Your task to perform on an android device: turn on data saver in the chrome app Image 0: 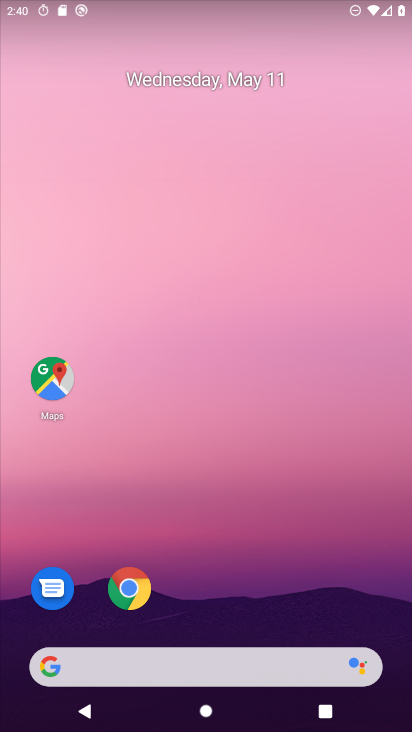
Step 0: drag from (273, 599) to (267, 35)
Your task to perform on an android device: turn on data saver in the chrome app Image 1: 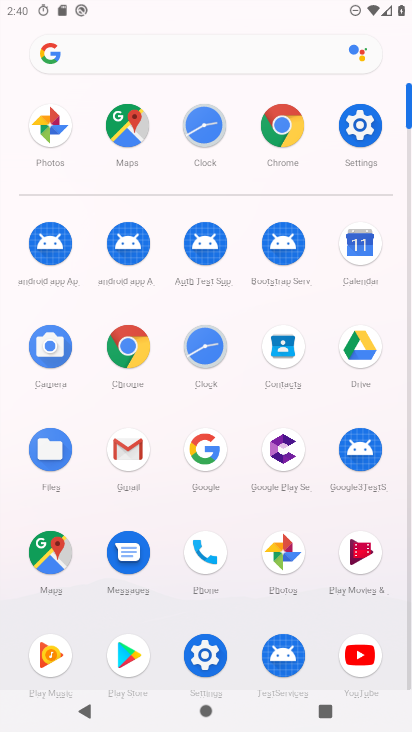
Step 1: click (281, 127)
Your task to perform on an android device: turn on data saver in the chrome app Image 2: 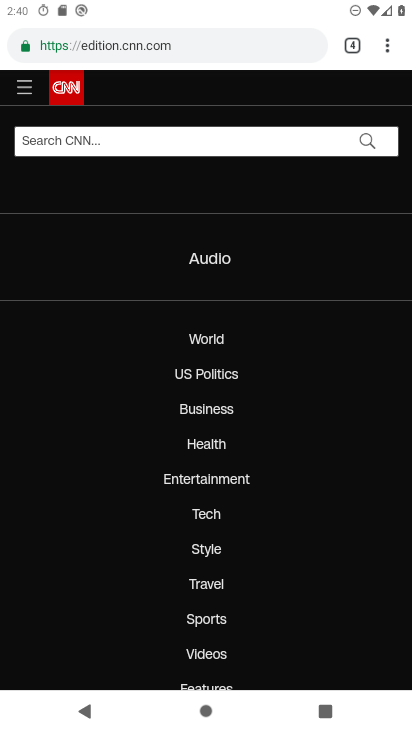
Step 2: drag from (381, 44) to (235, 604)
Your task to perform on an android device: turn on data saver in the chrome app Image 3: 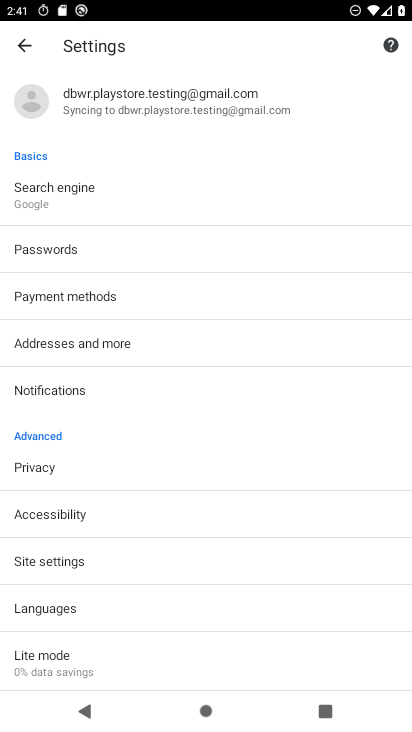
Step 3: drag from (188, 619) to (201, 363)
Your task to perform on an android device: turn on data saver in the chrome app Image 4: 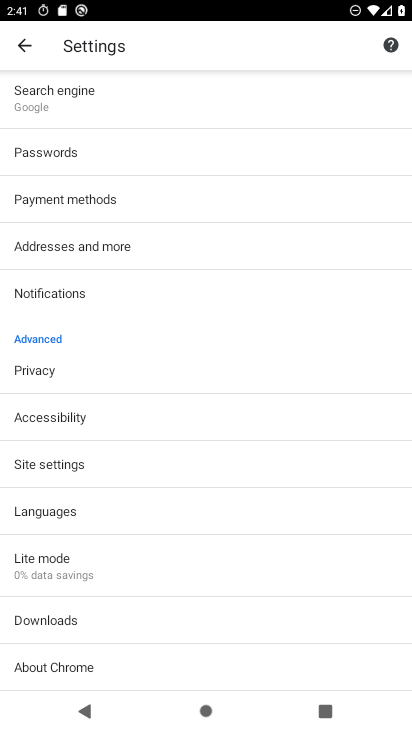
Step 4: click (47, 561)
Your task to perform on an android device: turn on data saver in the chrome app Image 5: 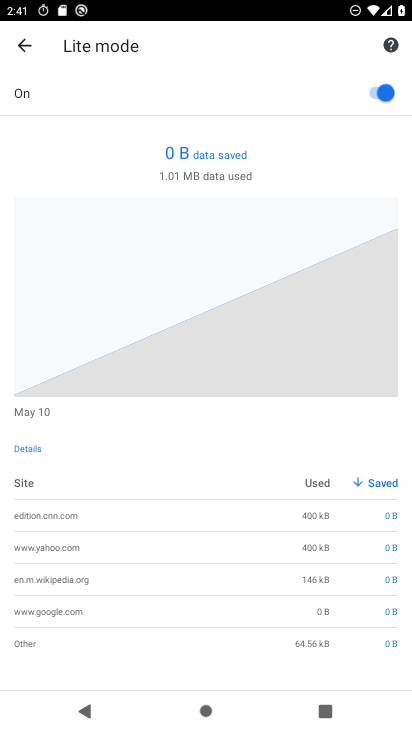
Step 5: task complete